Your task to perform on an android device: What is the capital of Canada? Image 0: 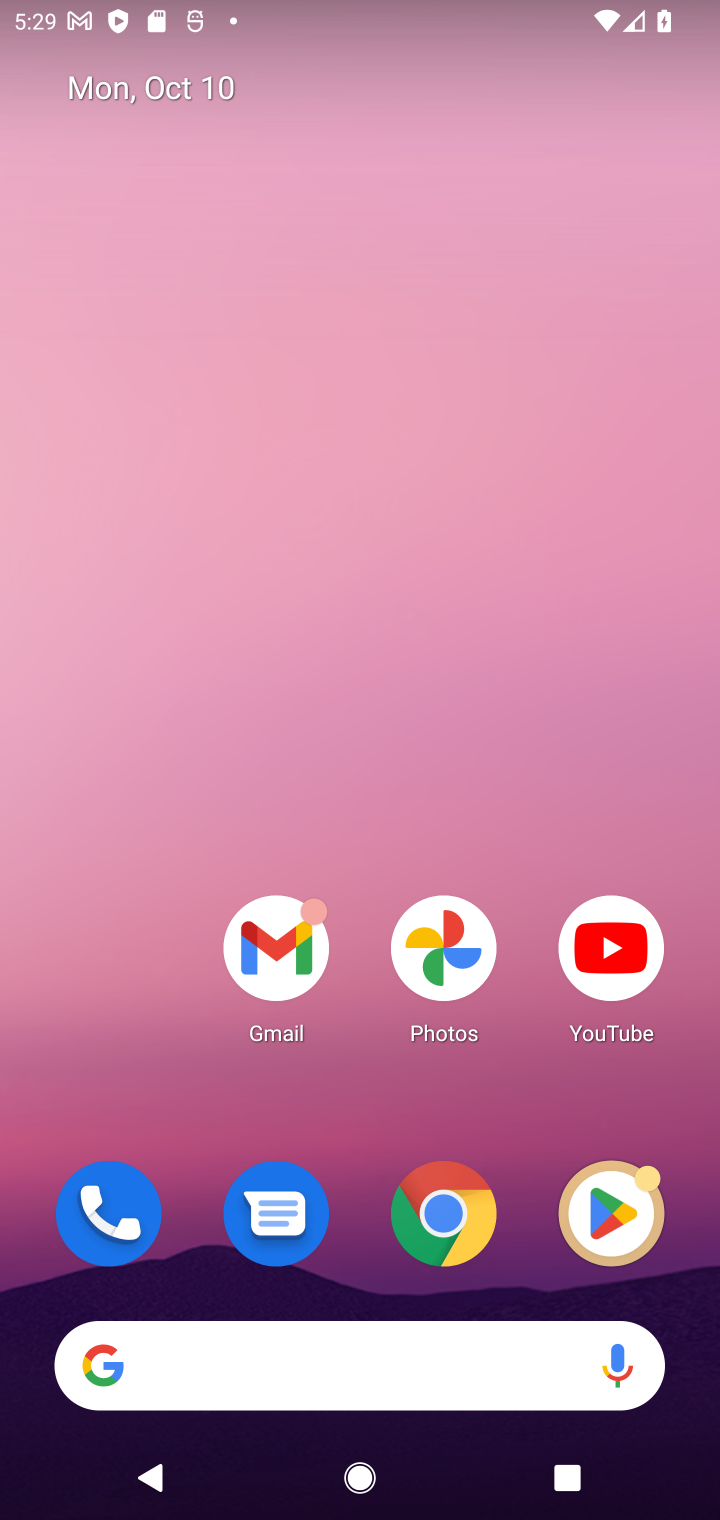
Step 0: click (238, 1346)
Your task to perform on an android device: What is the capital of Canada? Image 1: 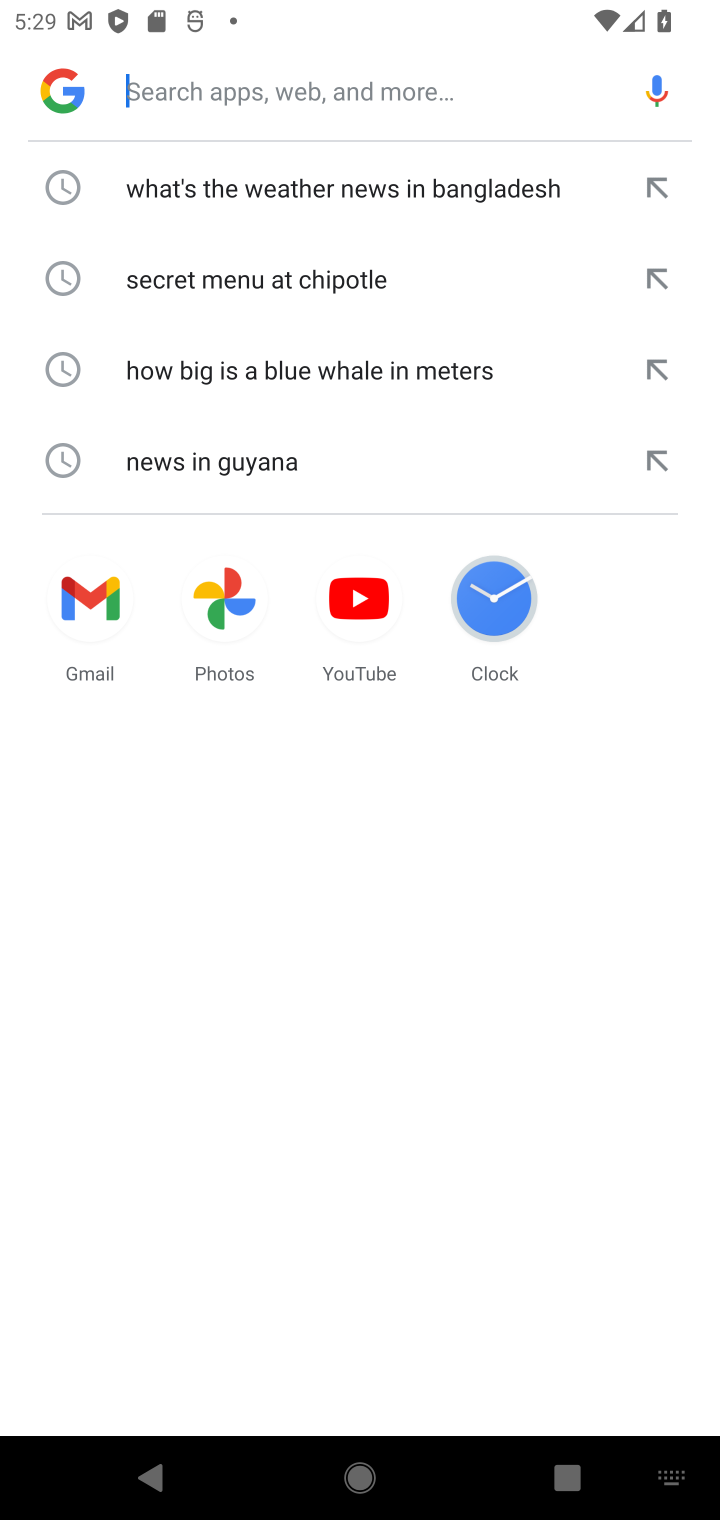
Step 1: click (282, 96)
Your task to perform on an android device: What is the capital of Canada? Image 2: 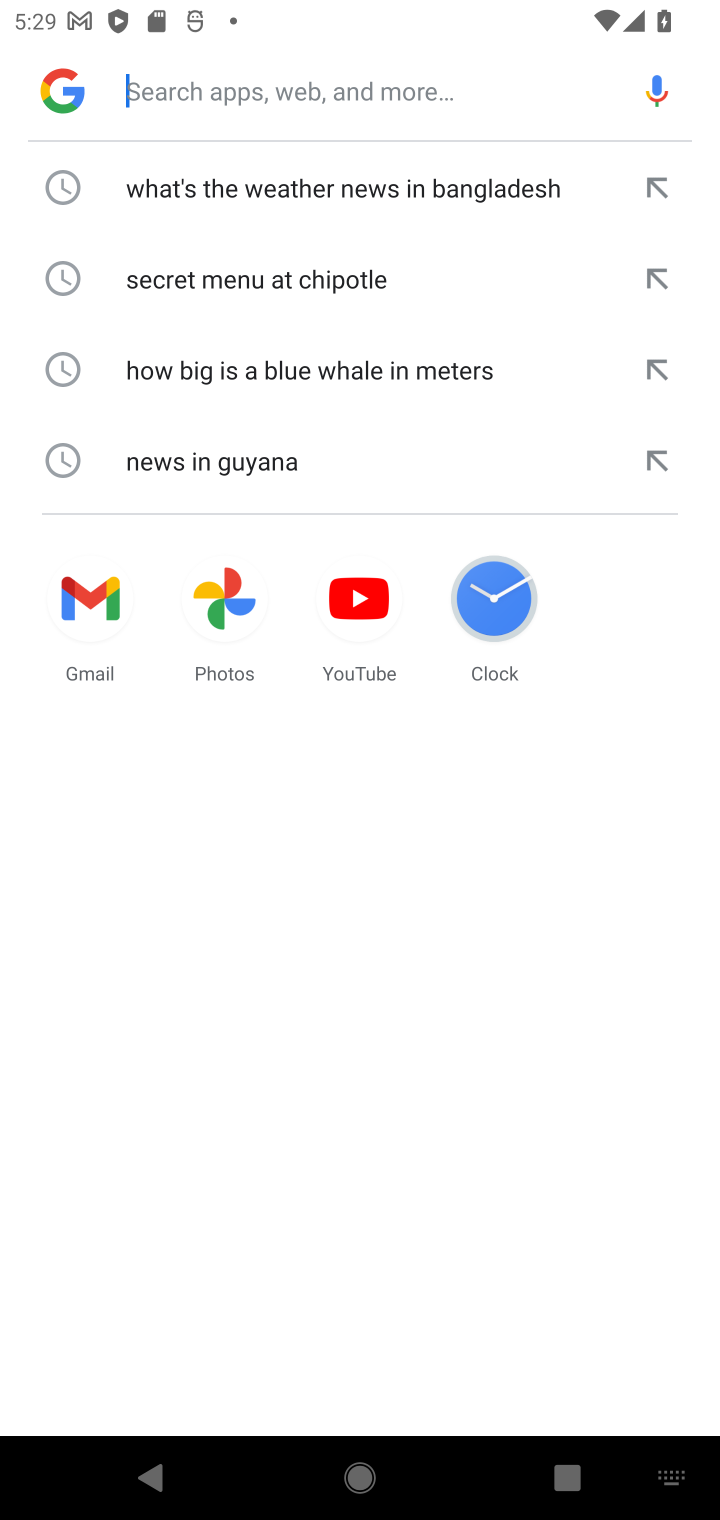
Step 2: type "What is the capital of Canada"
Your task to perform on an android device: What is the capital of Canada? Image 3: 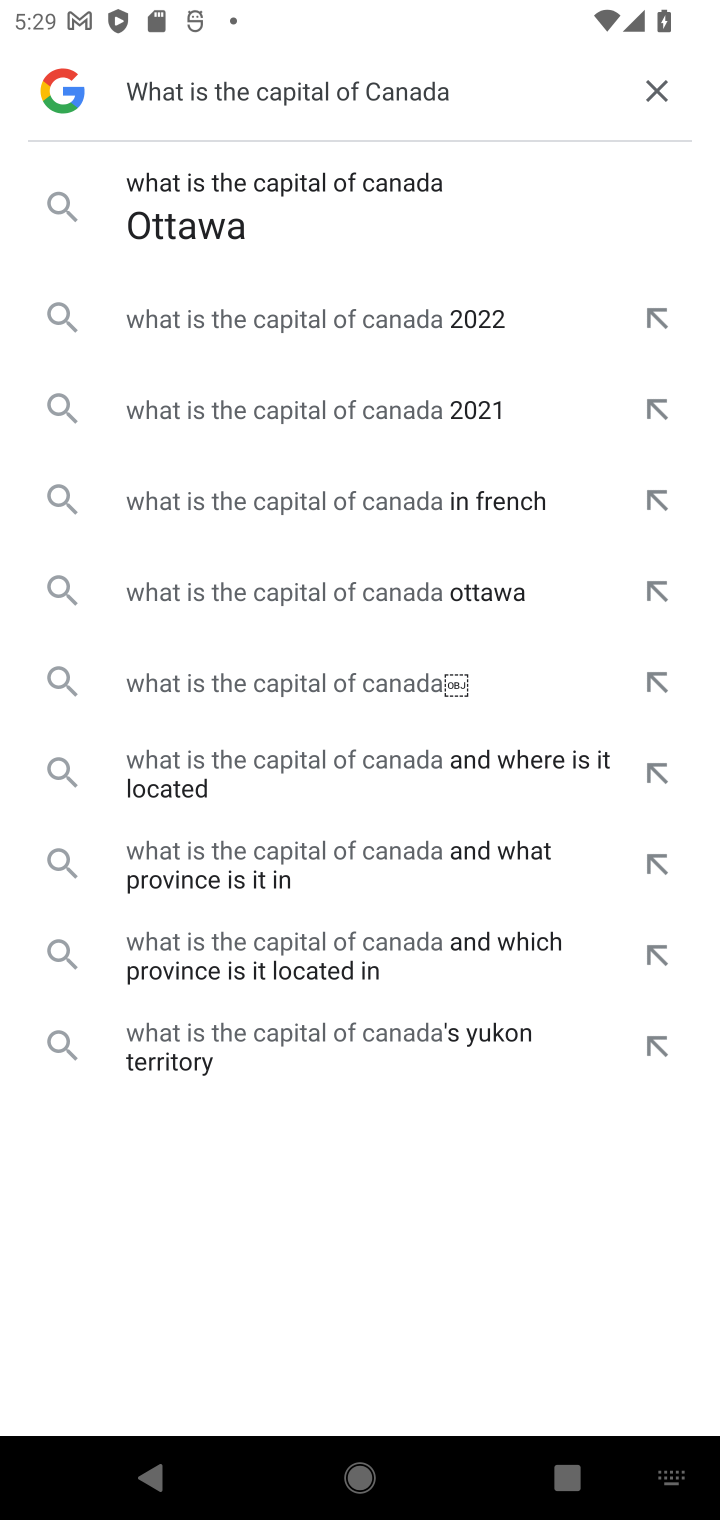
Step 3: click (412, 203)
Your task to perform on an android device: What is the capital of Canada? Image 4: 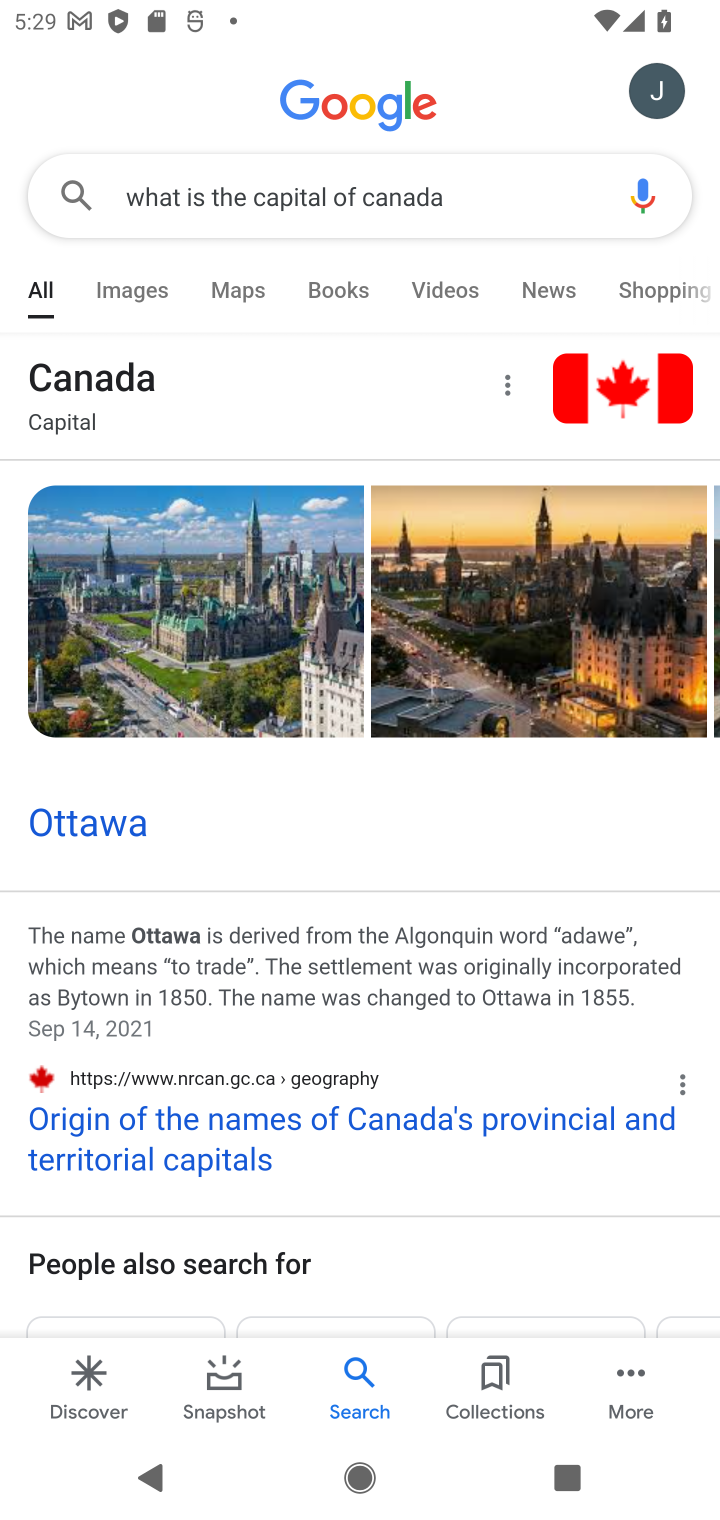
Step 4: task complete